Your task to perform on an android device: turn off wifi Image 0: 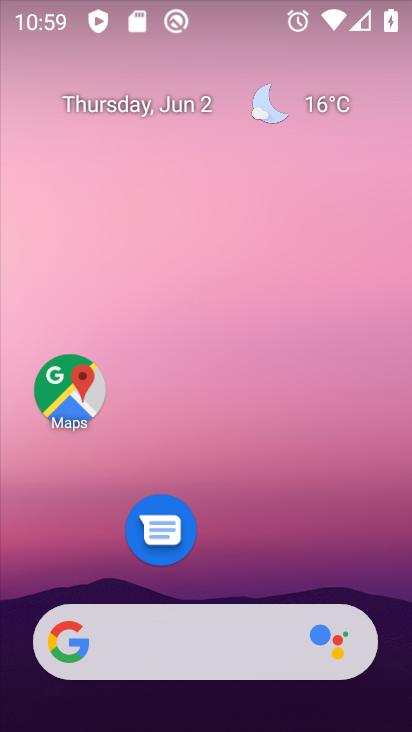
Step 0: drag from (233, 614) to (172, 209)
Your task to perform on an android device: turn off wifi Image 1: 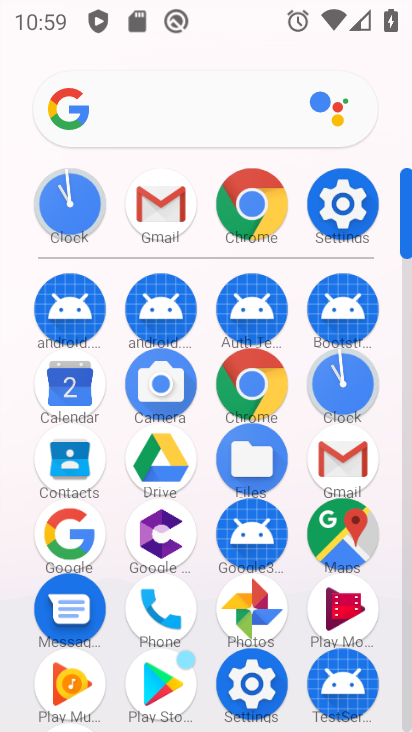
Step 1: click (333, 212)
Your task to perform on an android device: turn off wifi Image 2: 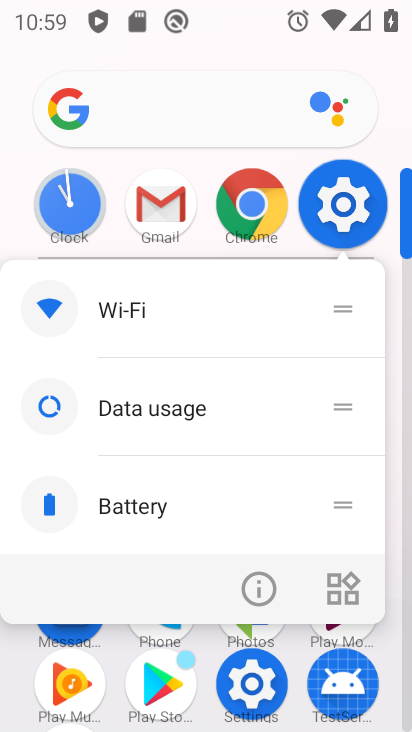
Step 2: click (324, 199)
Your task to perform on an android device: turn off wifi Image 3: 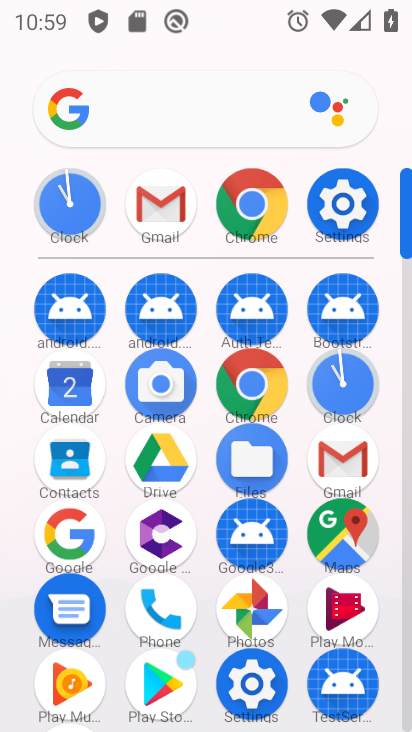
Step 3: click (338, 207)
Your task to perform on an android device: turn off wifi Image 4: 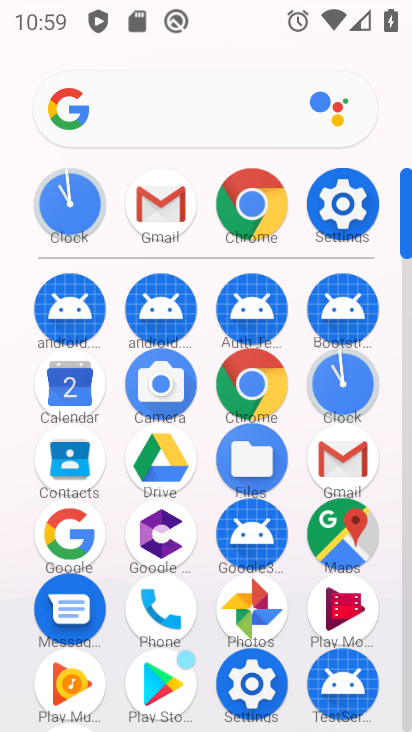
Step 4: click (338, 206)
Your task to perform on an android device: turn off wifi Image 5: 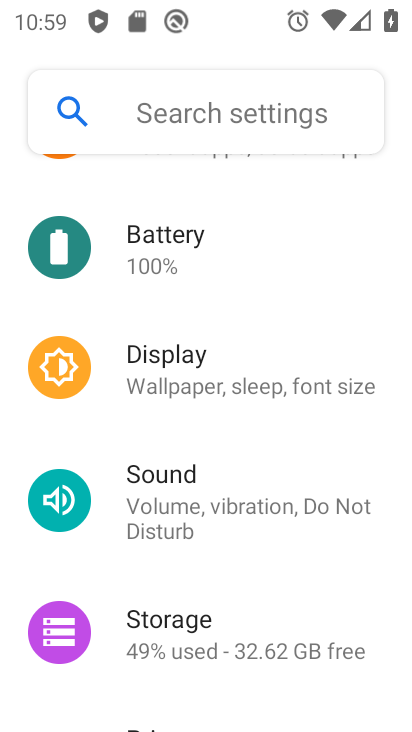
Step 5: drag from (177, 297) to (228, 445)
Your task to perform on an android device: turn off wifi Image 6: 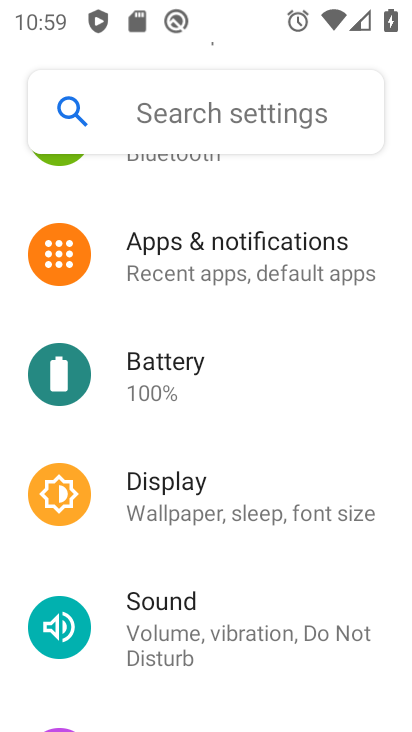
Step 6: drag from (194, 260) to (241, 582)
Your task to perform on an android device: turn off wifi Image 7: 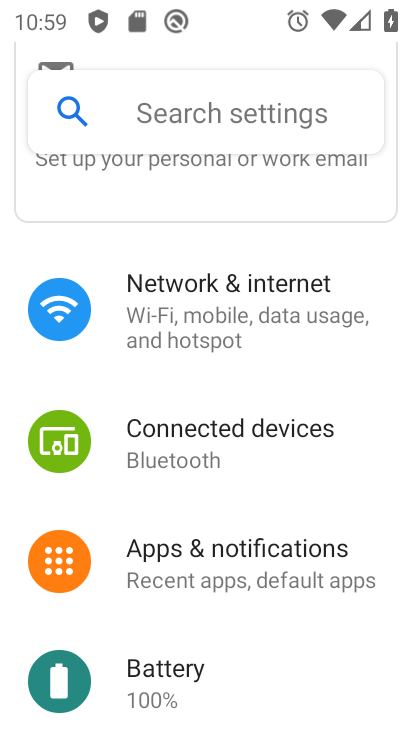
Step 7: drag from (209, 319) to (241, 522)
Your task to perform on an android device: turn off wifi Image 8: 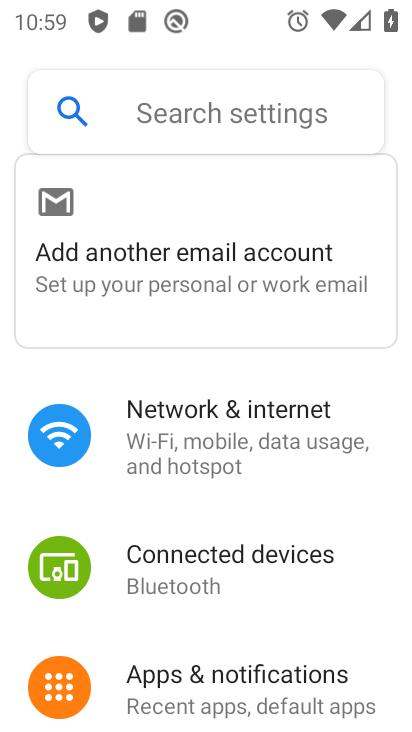
Step 8: click (227, 426)
Your task to perform on an android device: turn off wifi Image 9: 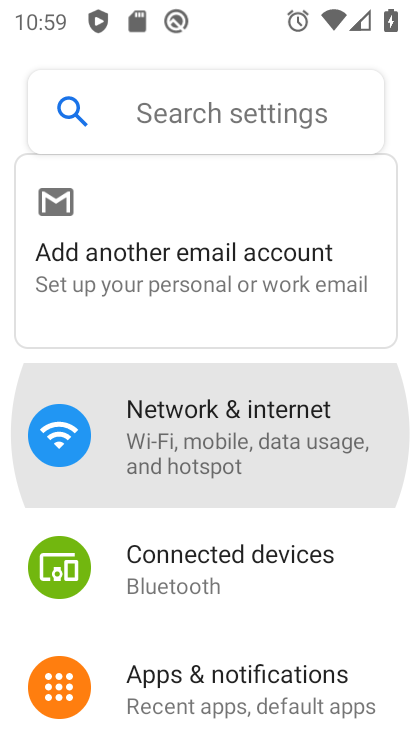
Step 9: click (229, 429)
Your task to perform on an android device: turn off wifi Image 10: 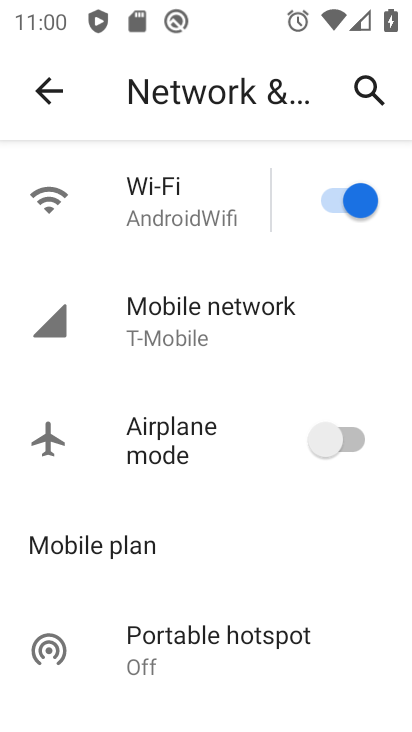
Step 10: click (354, 202)
Your task to perform on an android device: turn off wifi Image 11: 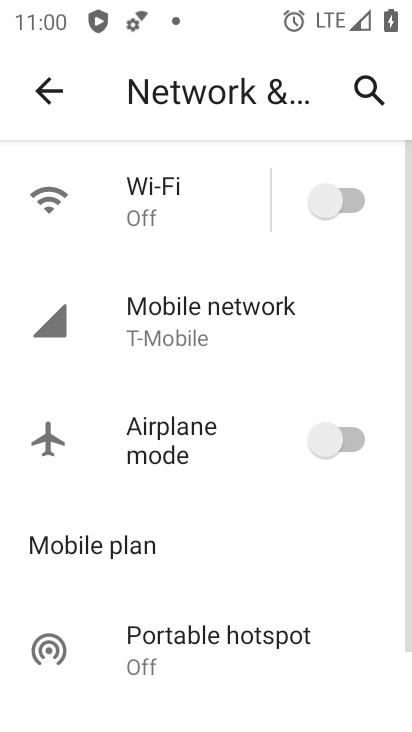
Step 11: task complete